Your task to perform on an android device: Search for pizza restaurants on Maps Image 0: 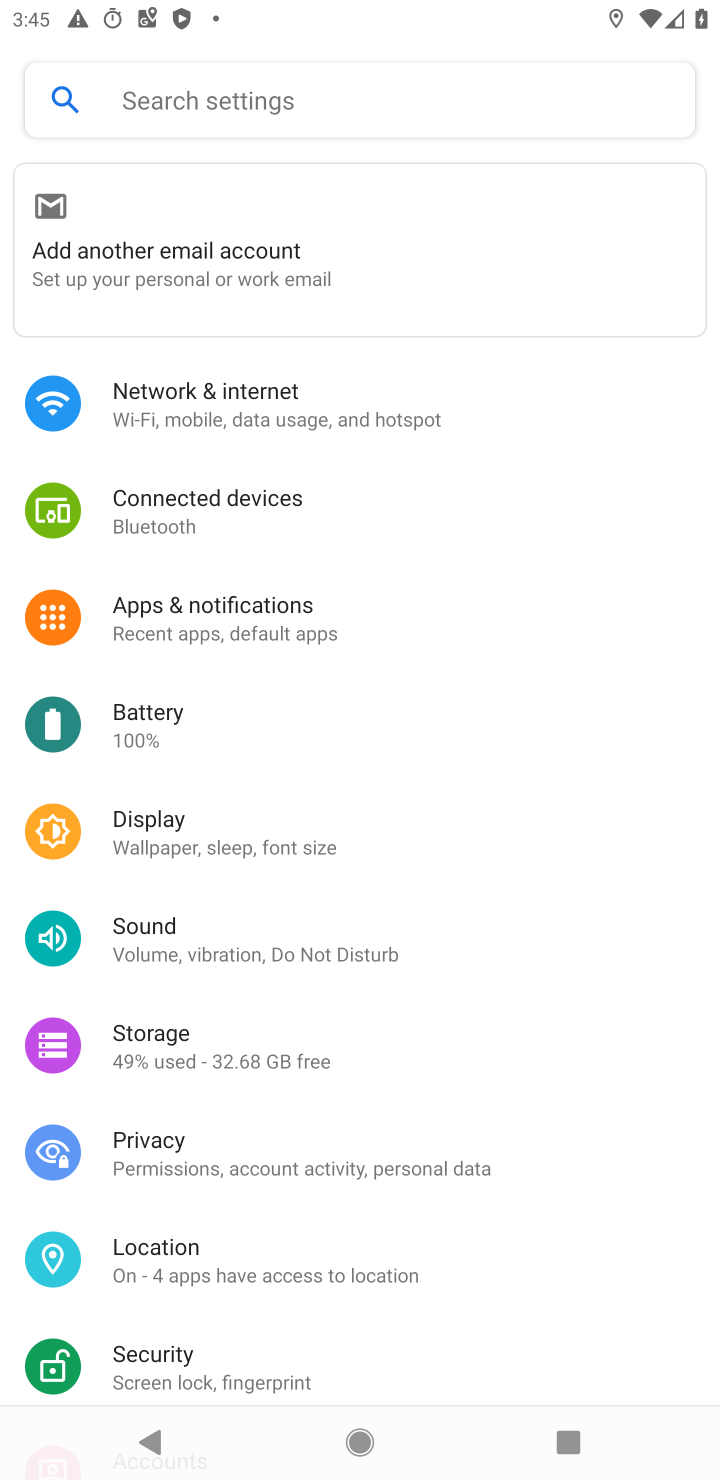
Step 0: press home button
Your task to perform on an android device: Search for pizza restaurants on Maps Image 1: 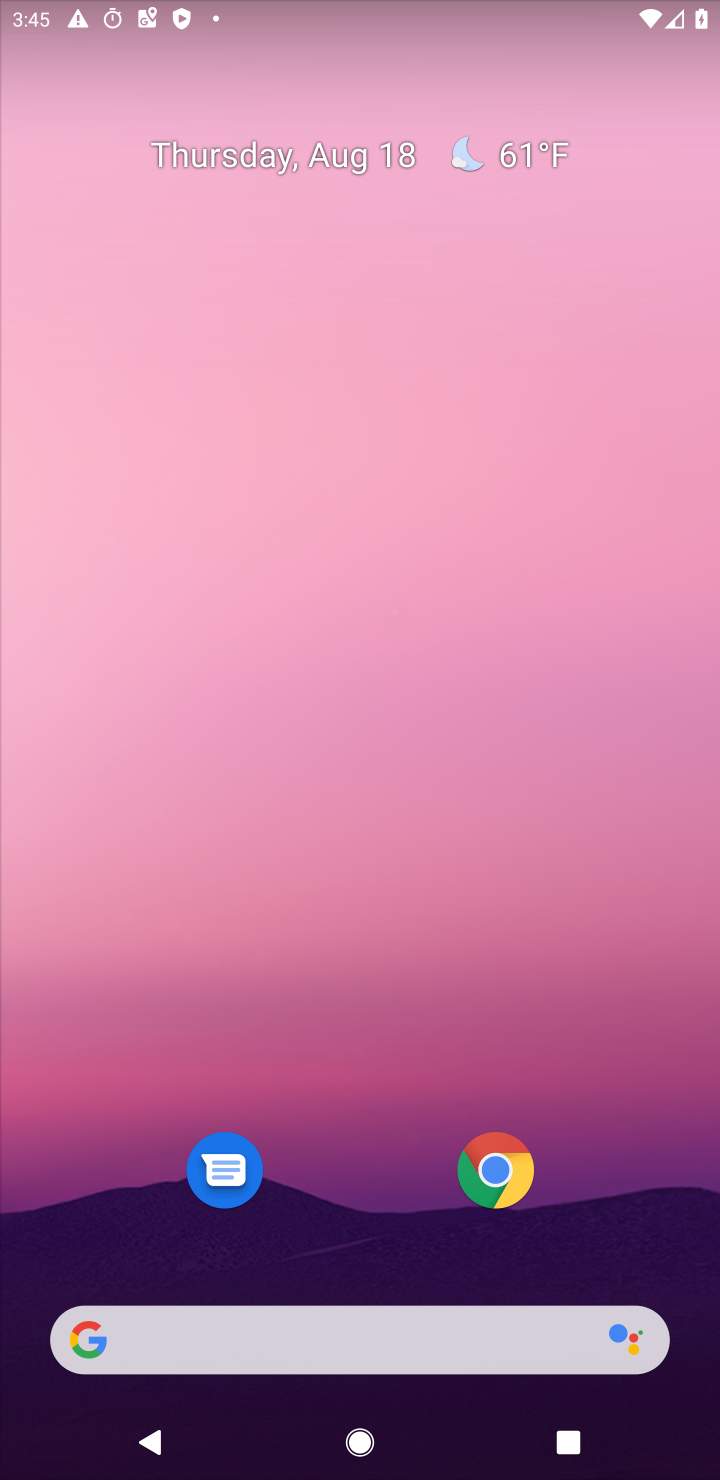
Step 1: drag from (98, 1416) to (196, 533)
Your task to perform on an android device: Search for pizza restaurants on Maps Image 2: 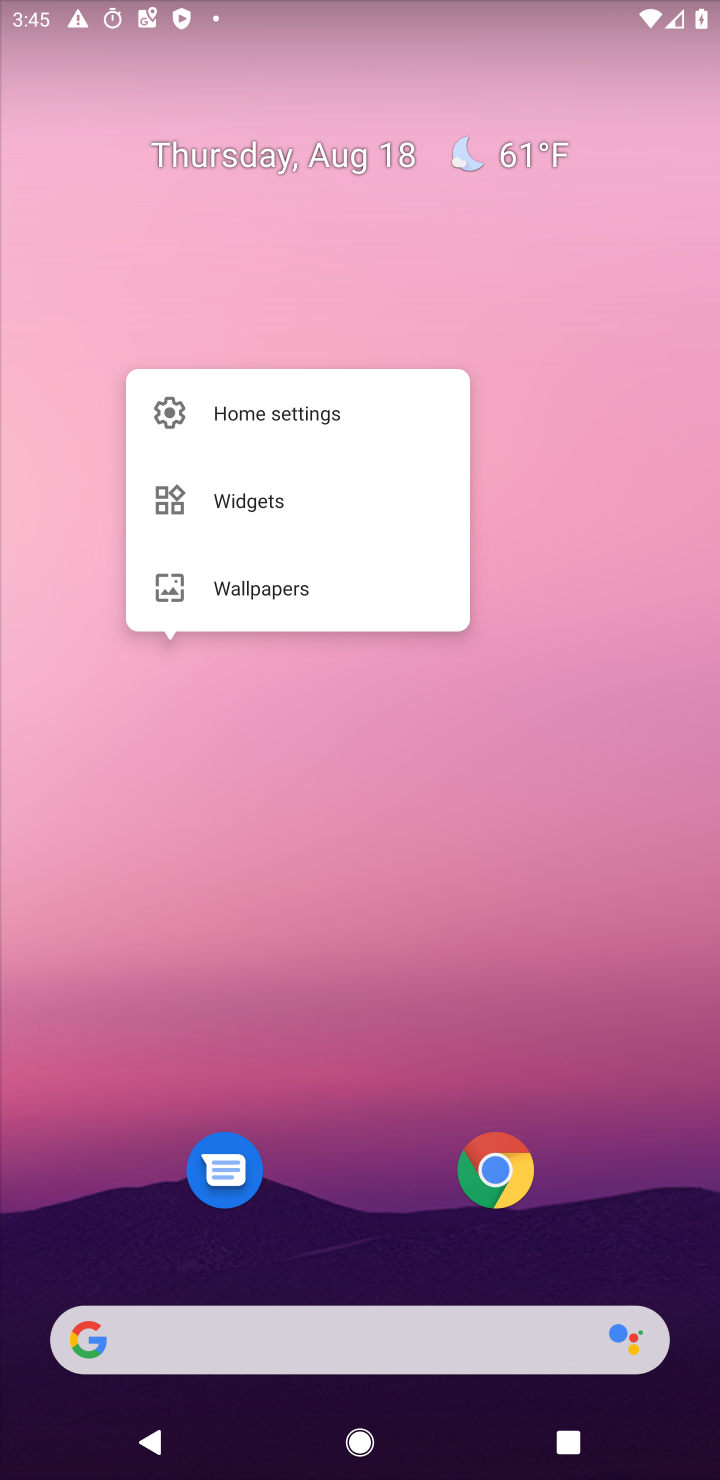
Step 2: drag from (37, 1400) to (5, 157)
Your task to perform on an android device: Search for pizza restaurants on Maps Image 3: 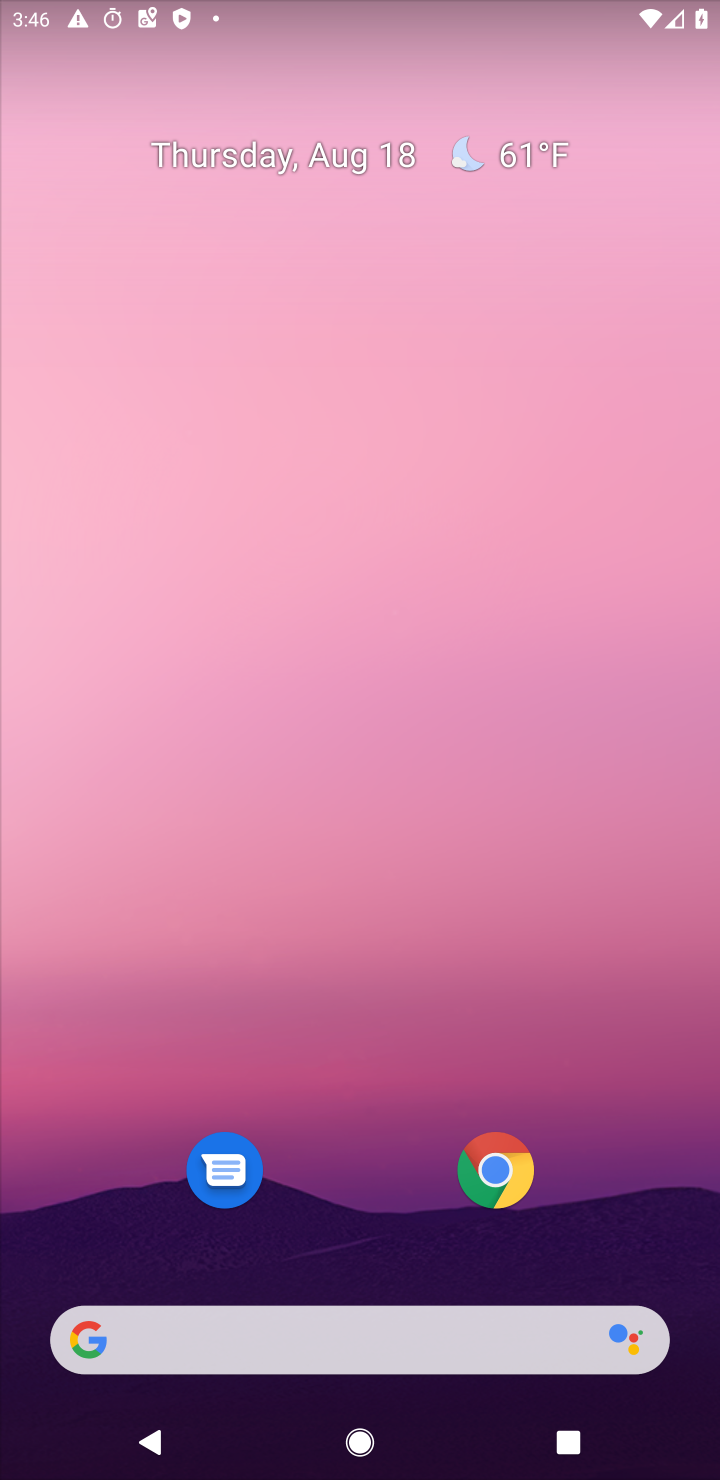
Step 3: drag from (20, 1379) to (115, 489)
Your task to perform on an android device: Search for pizza restaurants on Maps Image 4: 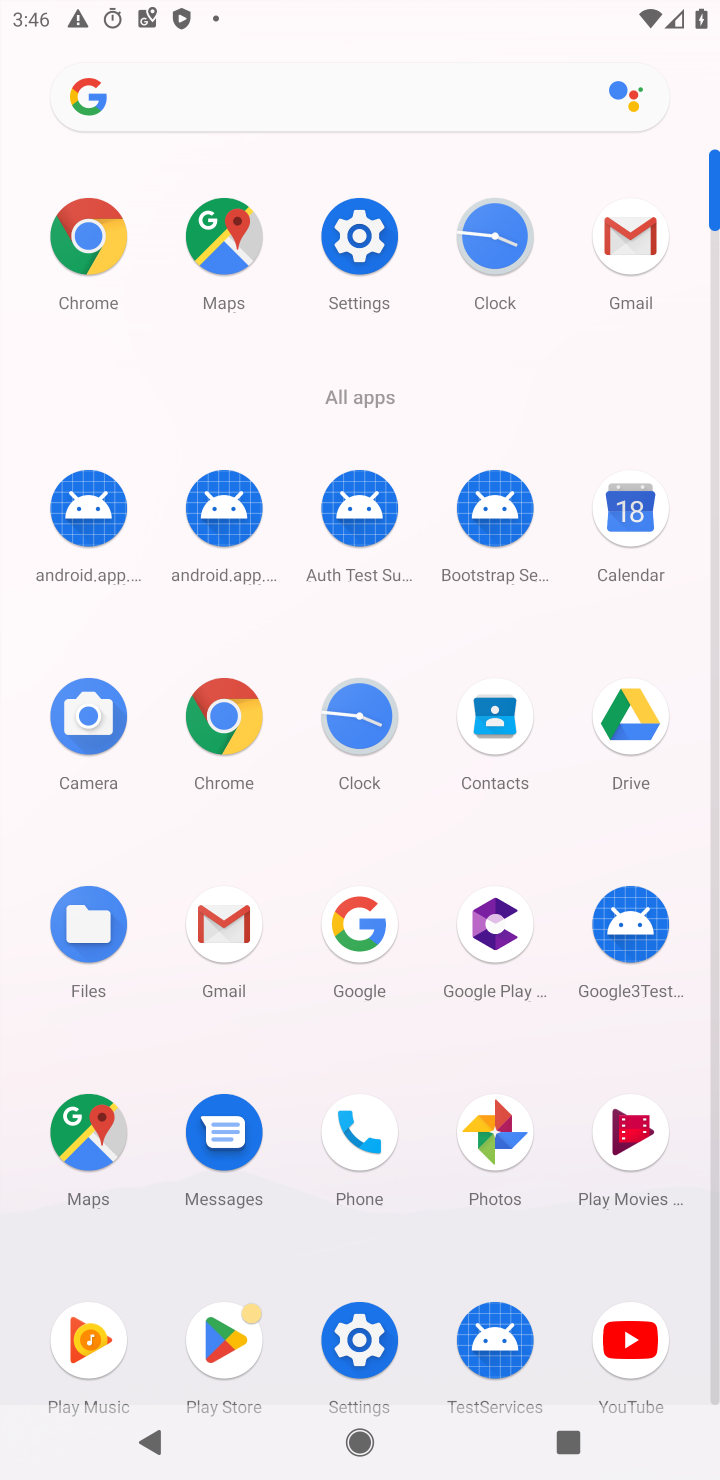
Step 4: click (81, 1151)
Your task to perform on an android device: Search for pizza restaurants on Maps Image 5: 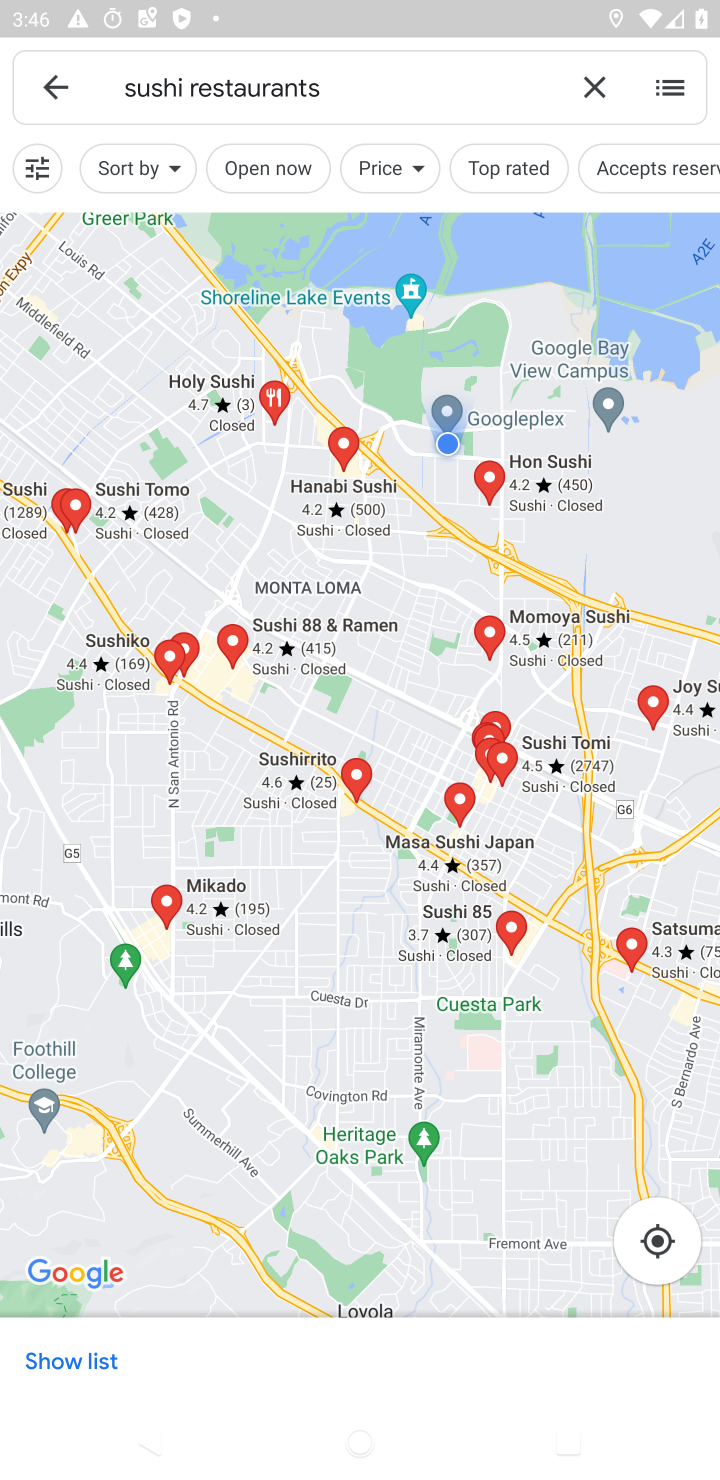
Step 5: press back button
Your task to perform on an android device: Search for pizza restaurants on Maps Image 6: 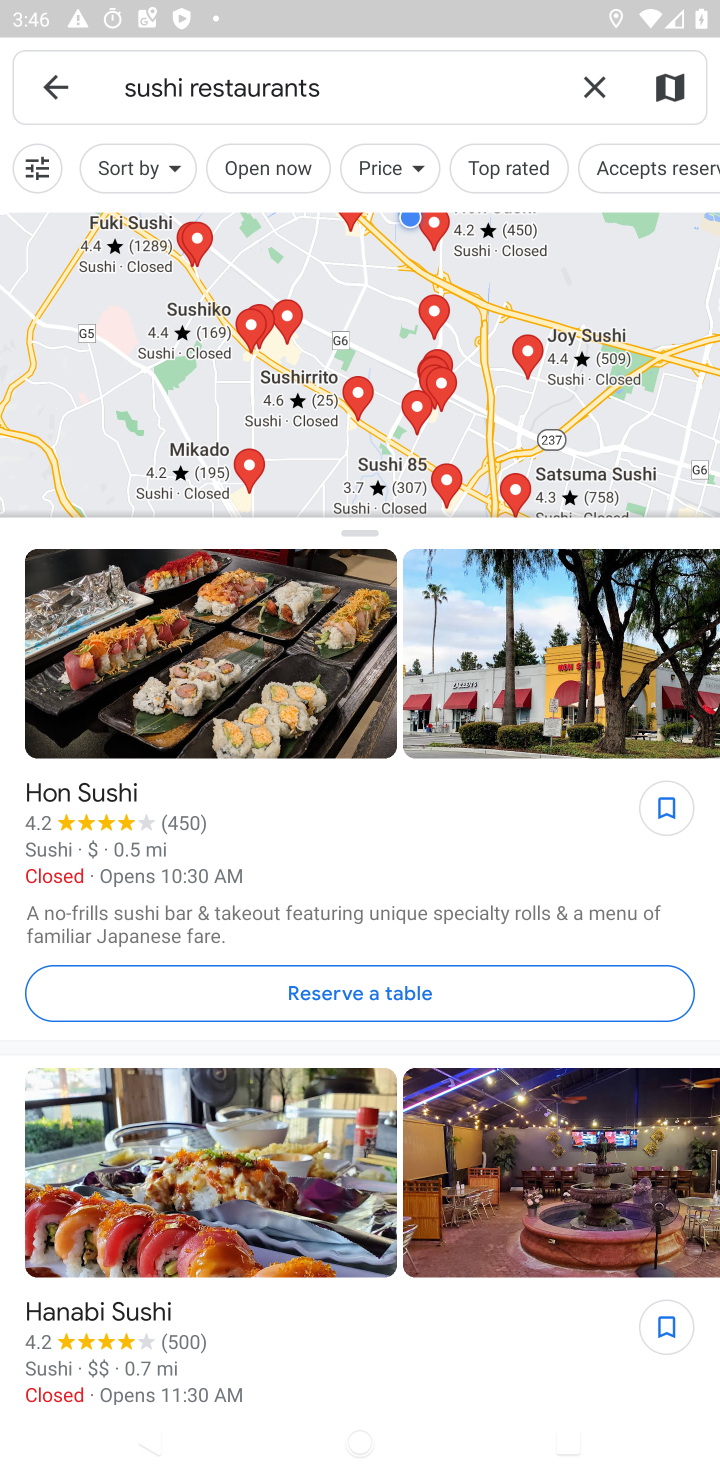
Step 6: press back button
Your task to perform on an android device: Search for pizza restaurants on Maps Image 7: 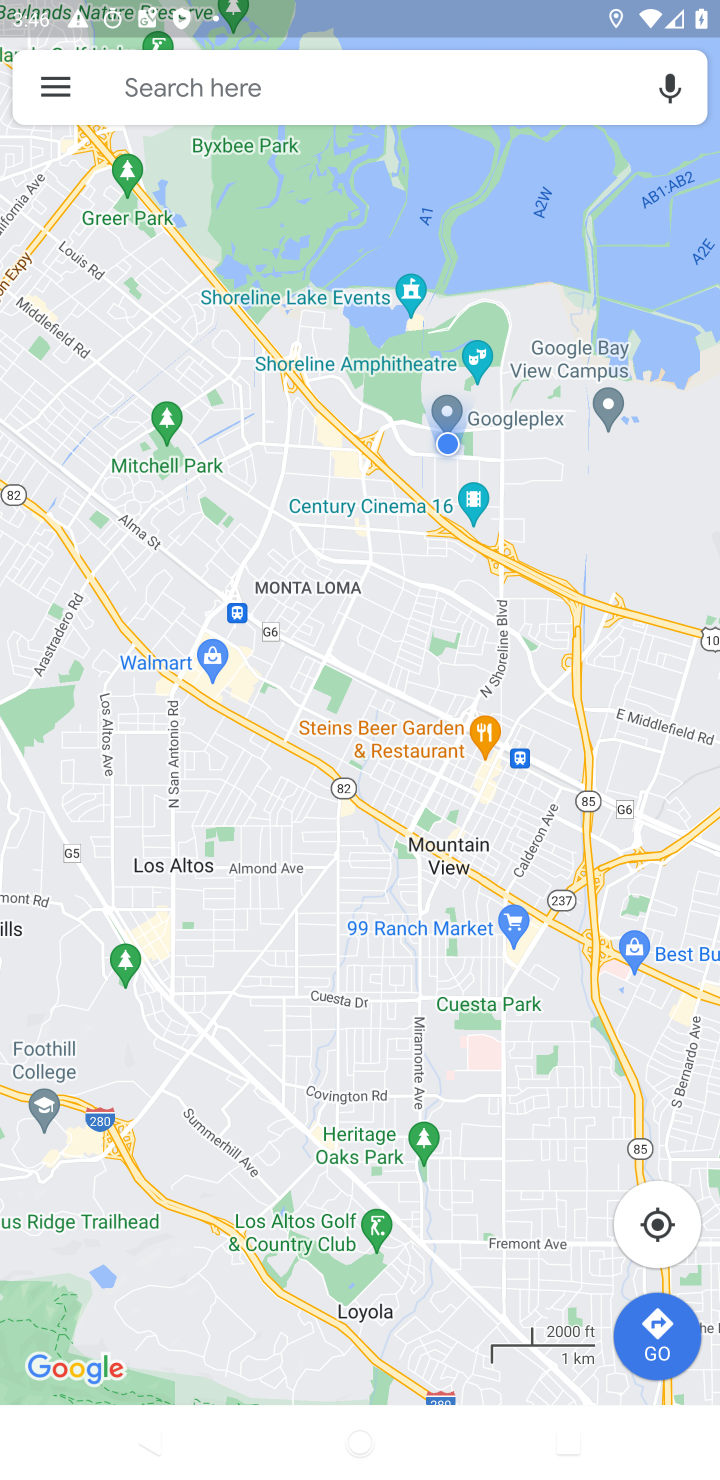
Step 7: click (149, 75)
Your task to perform on an android device: Search for pizza restaurants on Maps Image 8: 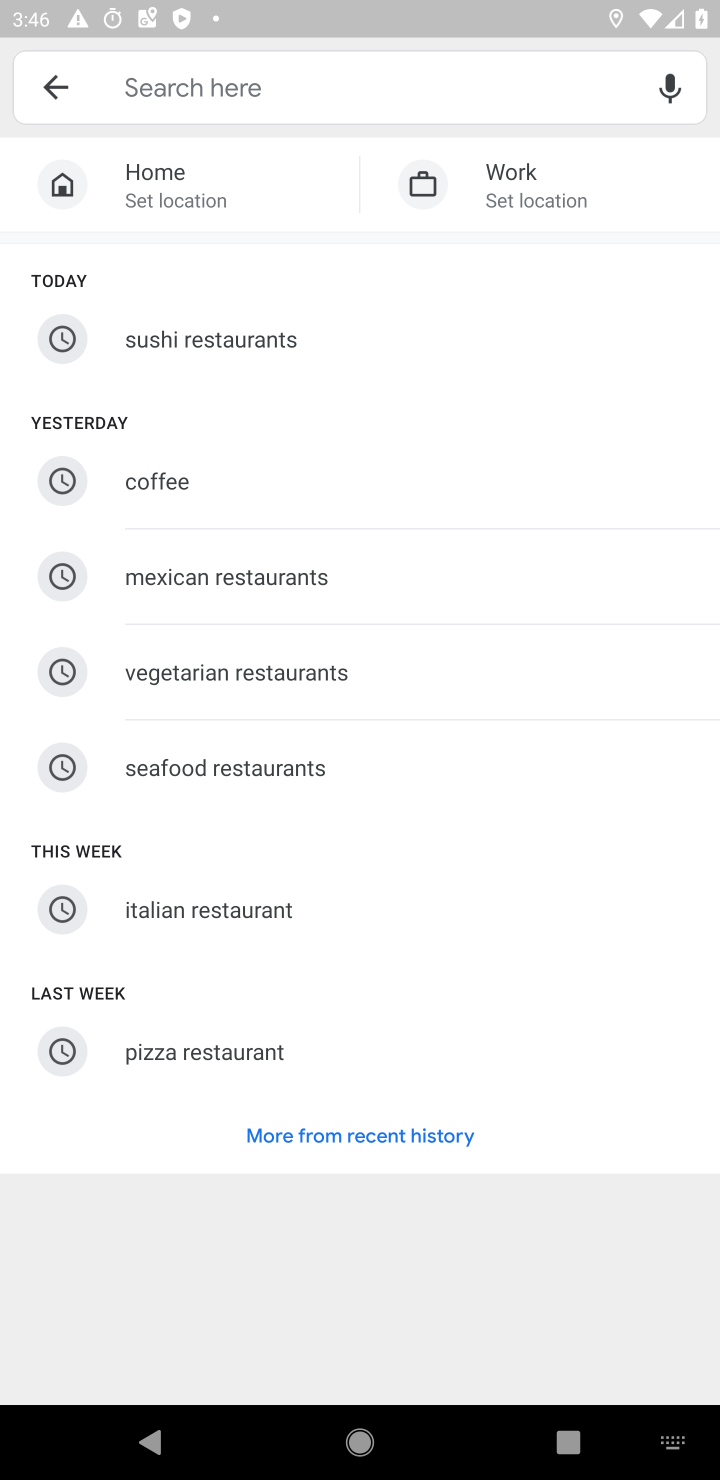
Step 8: type "pizza restaurants "
Your task to perform on an android device: Search for pizza restaurants on Maps Image 9: 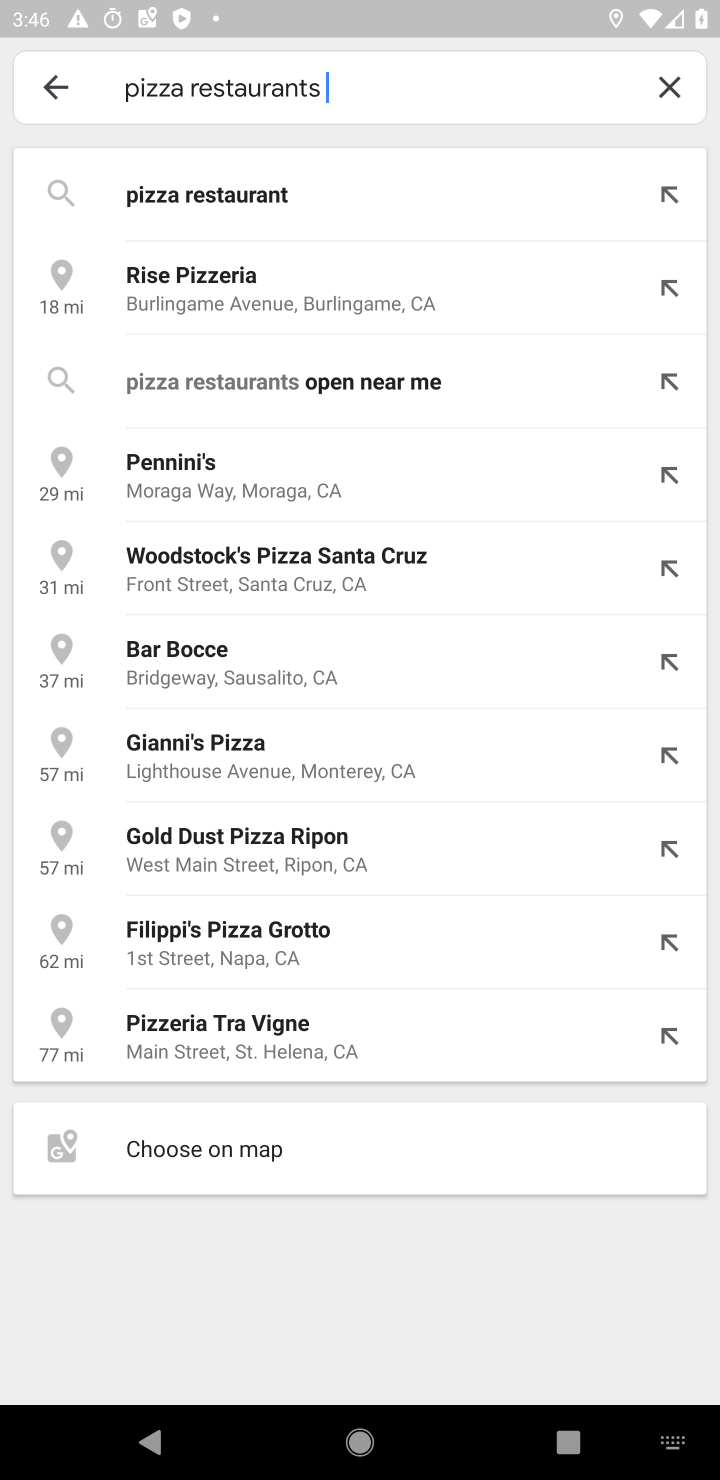
Step 9: click (202, 218)
Your task to perform on an android device: Search for pizza restaurants on Maps Image 10: 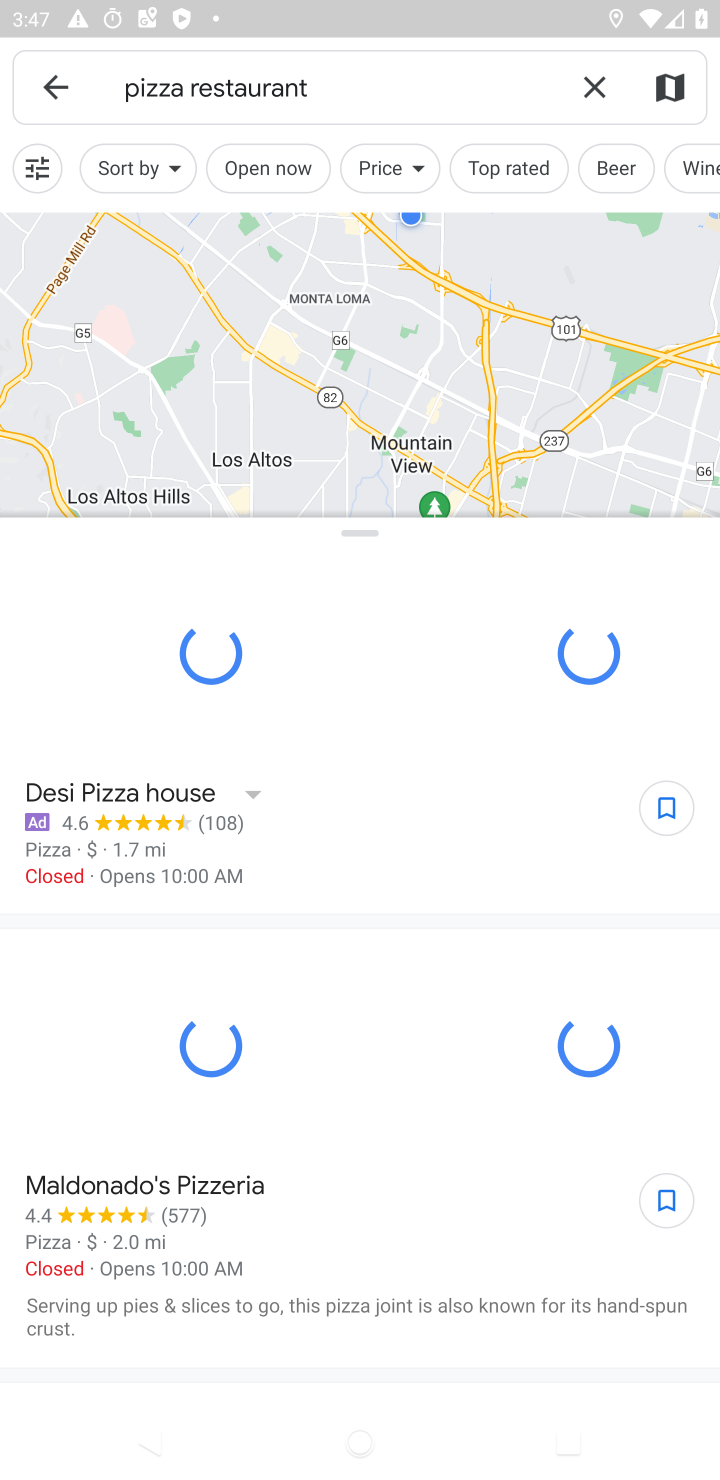
Step 10: task complete